Your task to perform on an android device: Open Google Image 0: 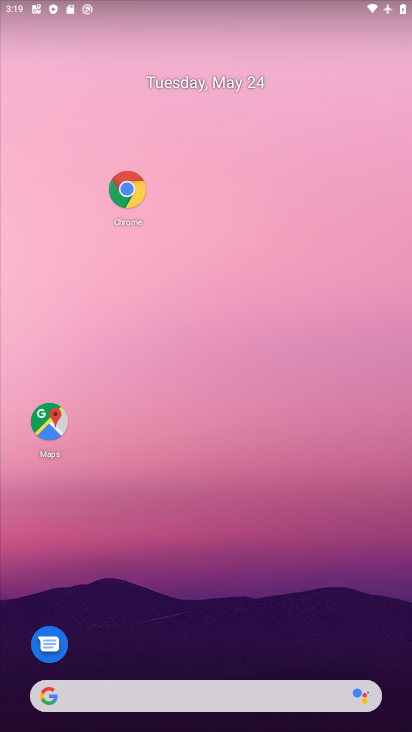
Step 0: drag from (245, 585) to (248, 4)
Your task to perform on an android device: Open Google Image 1: 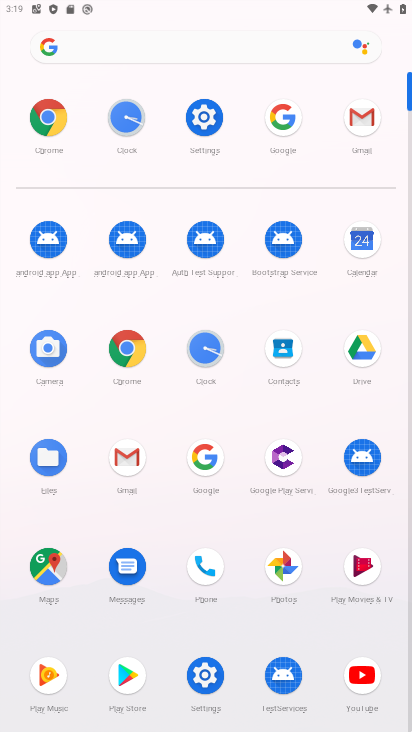
Step 1: click (200, 454)
Your task to perform on an android device: Open Google Image 2: 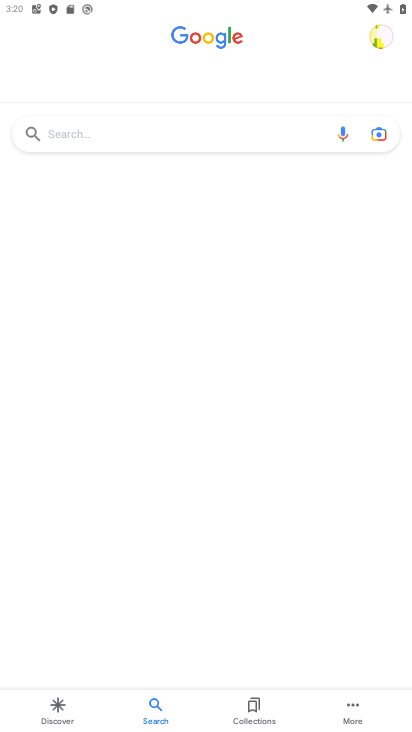
Step 2: task complete